Your task to perform on an android device: When is my next meeting? Image 0: 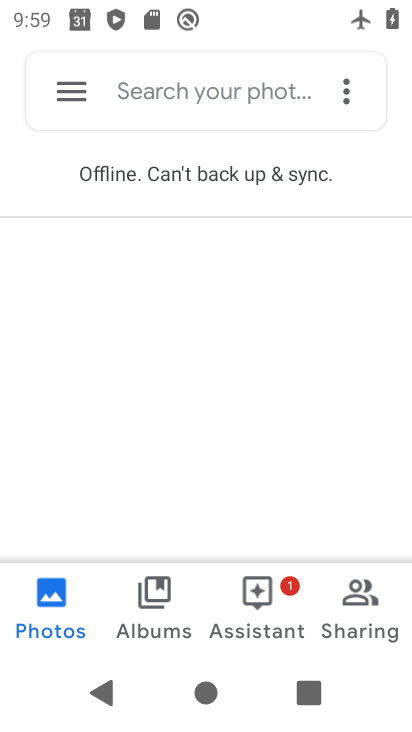
Step 0: press home button
Your task to perform on an android device: When is my next meeting? Image 1: 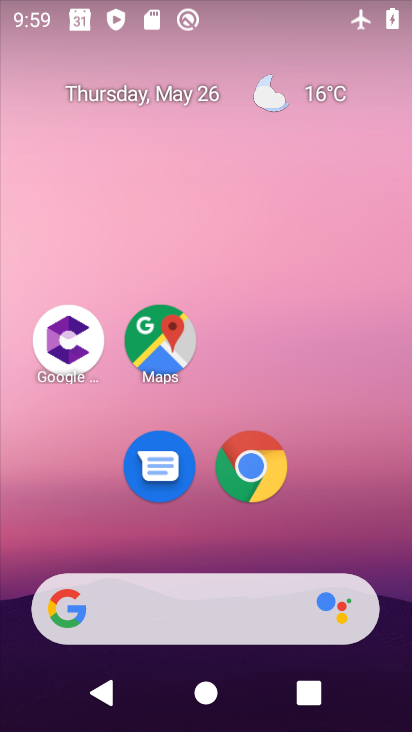
Step 1: drag from (333, 517) to (343, 26)
Your task to perform on an android device: When is my next meeting? Image 2: 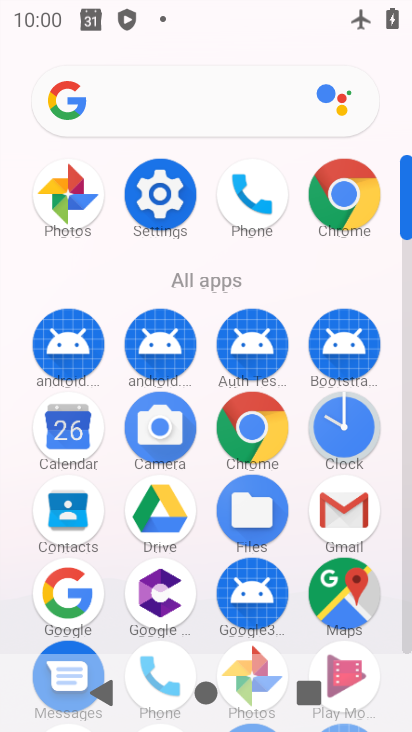
Step 2: click (64, 446)
Your task to perform on an android device: When is my next meeting? Image 3: 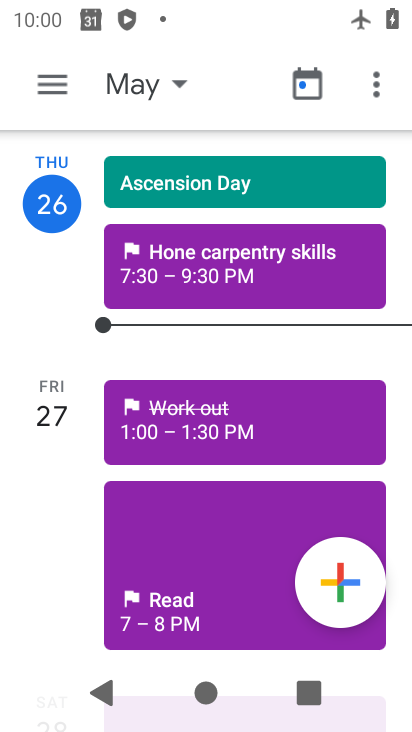
Step 3: task complete